Your task to perform on an android device: Open Wikipedia Image 0: 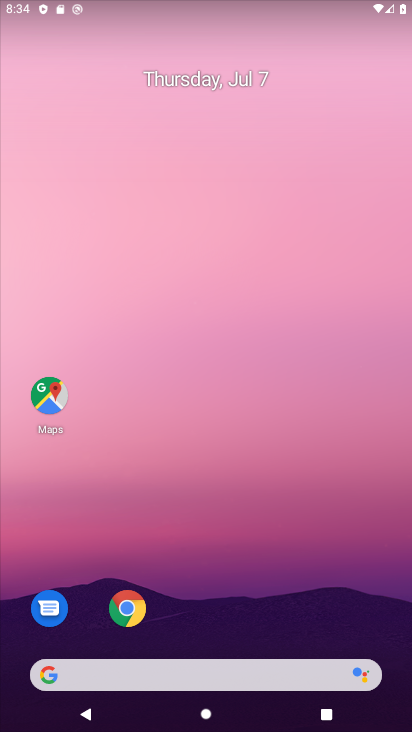
Step 0: drag from (273, 688) to (202, 86)
Your task to perform on an android device: Open Wikipedia Image 1: 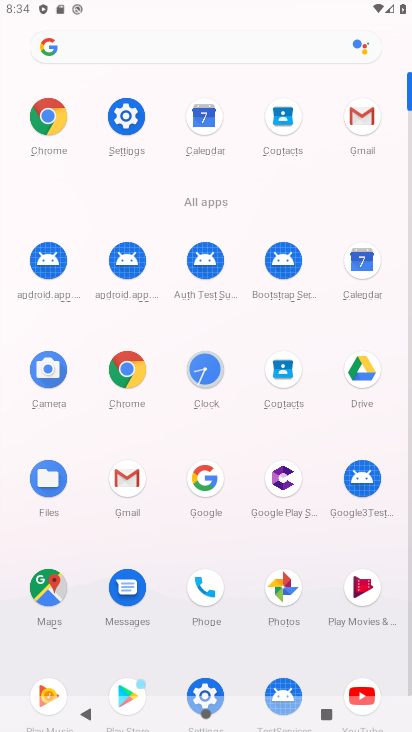
Step 1: click (127, 362)
Your task to perform on an android device: Open Wikipedia Image 2: 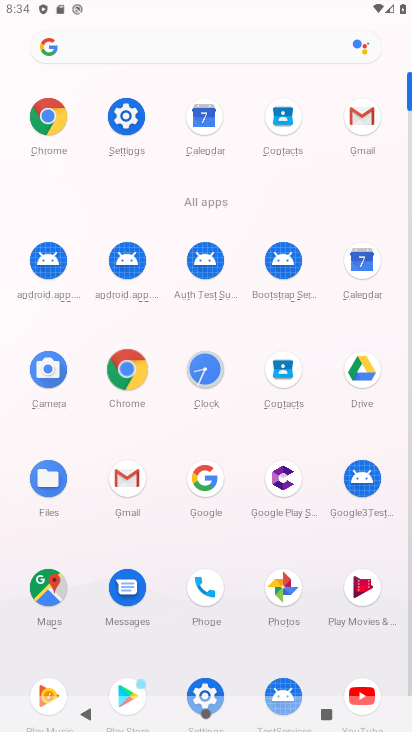
Step 2: click (128, 367)
Your task to perform on an android device: Open Wikipedia Image 3: 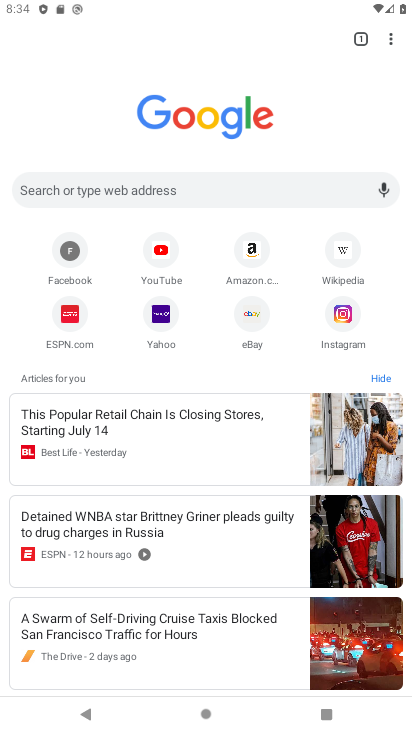
Step 3: click (347, 252)
Your task to perform on an android device: Open Wikipedia Image 4: 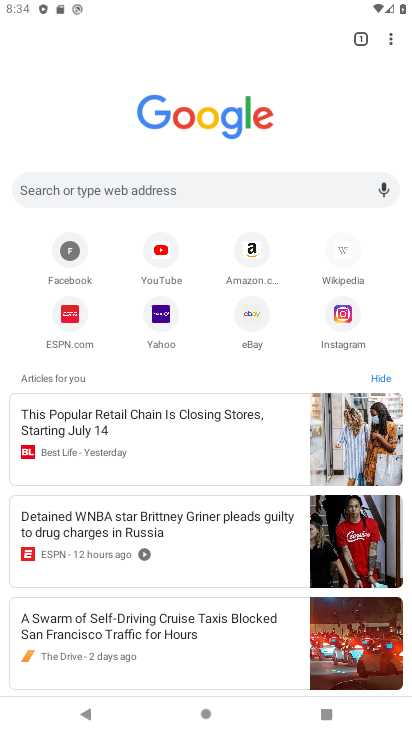
Step 4: click (347, 252)
Your task to perform on an android device: Open Wikipedia Image 5: 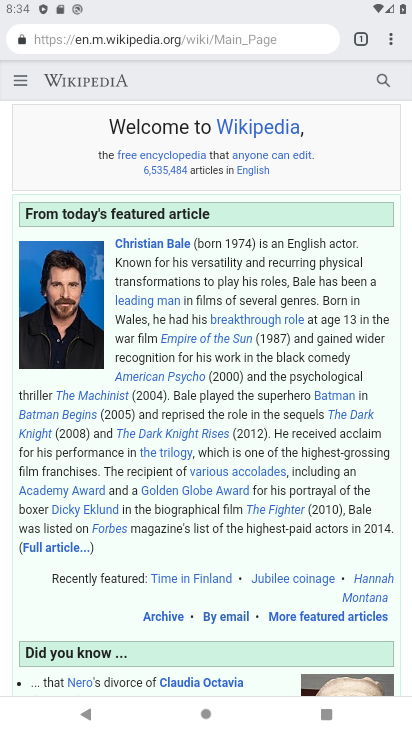
Step 5: task complete